Your task to perform on an android device: open a new tab in the chrome app Image 0: 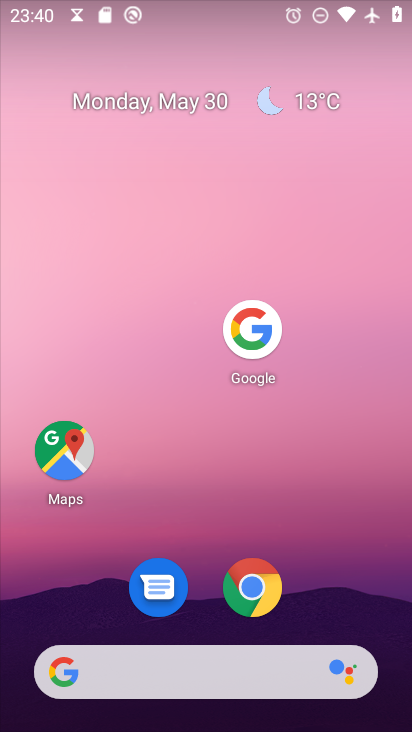
Step 0: press home button
Your task to perform on an android device: open a new tab in the chrome app Image 1: 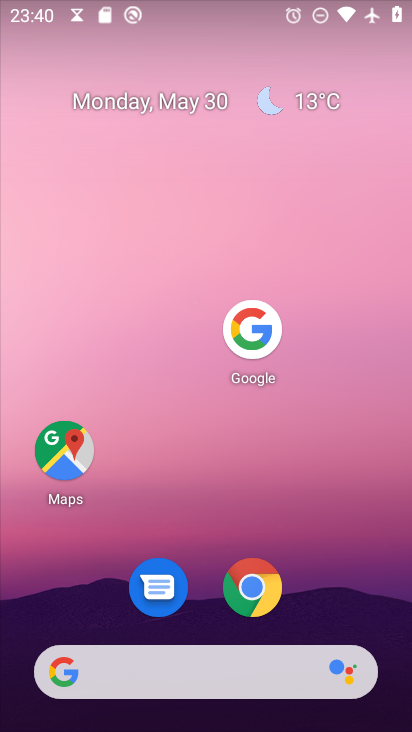
Step 1: click (267, 592)
Your task to perform on an android device: open a new tab in the chrome app Image 2: 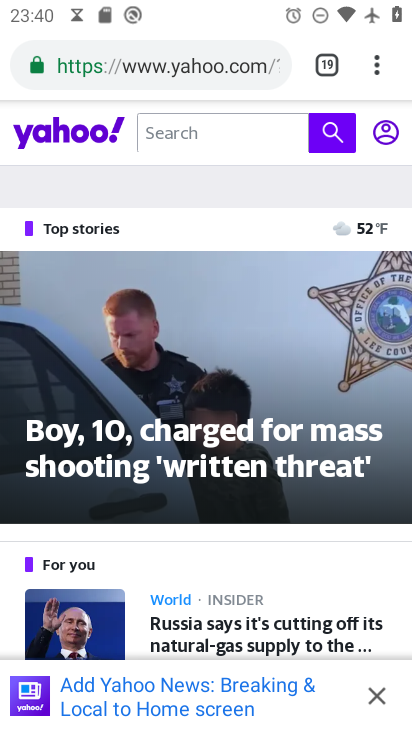
Step 2: task complete